Your task to perform on an android device: Go to ESPN.com Image 0: 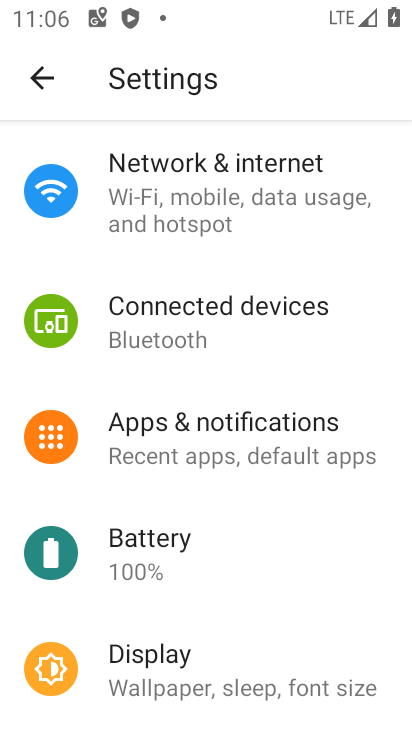
Step 0: press home button
Your task to perform on an android device: Go to ESPN.com Image 1: 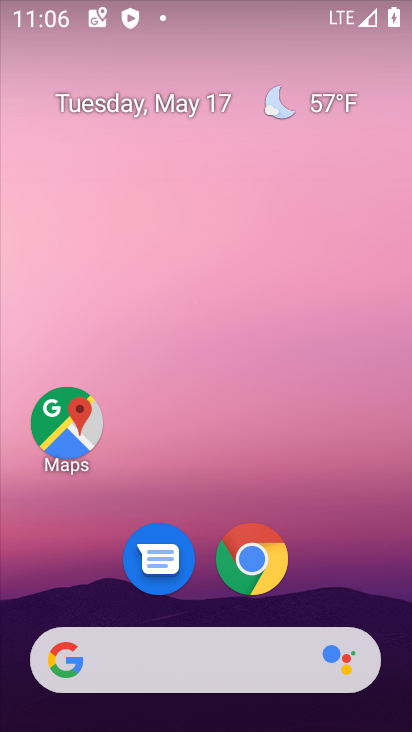
Step 1: click (267, 590)
Your task to perform on an android device: Go to ESPN.com Image 2: 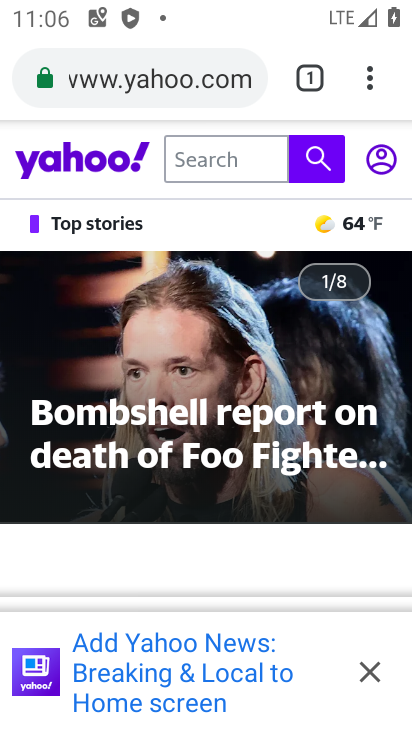
Step 2: click (216, 83)
Your task to perform on an android device: Go to ESPN.com Image 3: 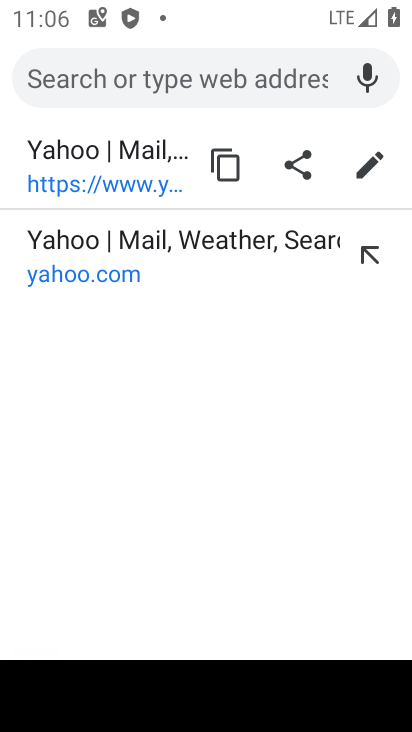
Step 3: press back button
Your task to perform on an android device: Go to ESPN.com Image 4: 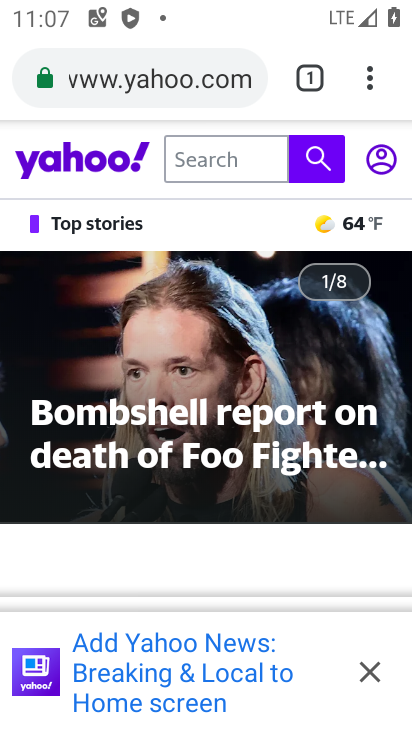
Step 4: press back button
Your task to perform on an android device: Go to ESPN.com Image 5: 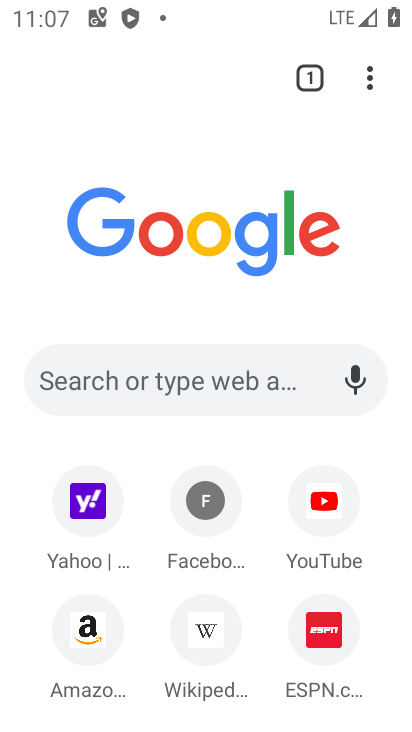
Step 5: click (223, 387)
Your task to perform on an android device: Go to ESPN.com Image 6: 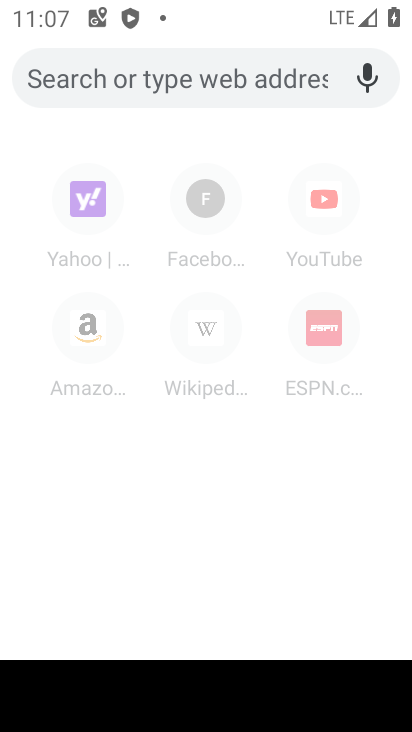
Step 6: type "espn.com"
Your task to perform on an android device: Go to ESPN.com Image 7: 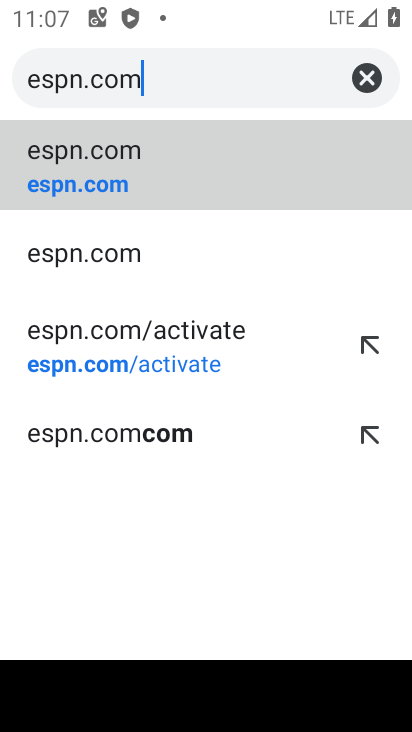
Step 7: click (172, 161)
Your task to perform on an android device: Go to ESPN.com Image 8: 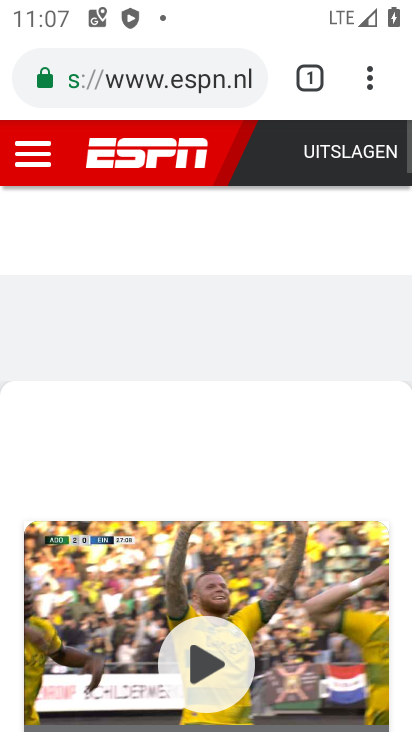
Step 8: task complete